Your task to perform on an android device: toggle priority inbox in the gmail app Image 0: 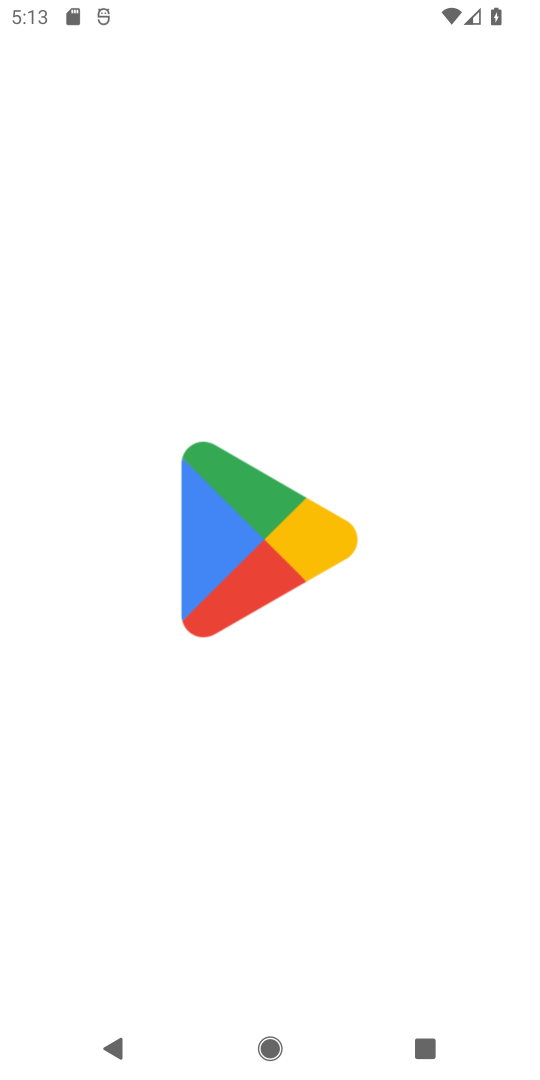
Step 0: press home button
Your task to perform on an android device: toggle priority inbox in the gmail app Image 1: 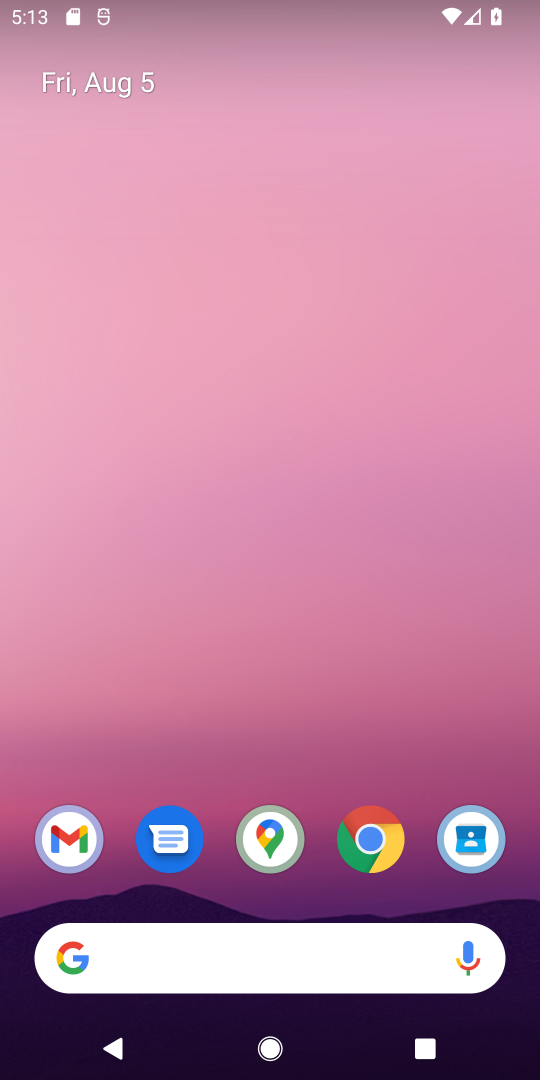
Step 1: drag from (267, 740) to (281, 206)
Your task to perform on an android device: toggle priority inbox in the gmail app Image 2: 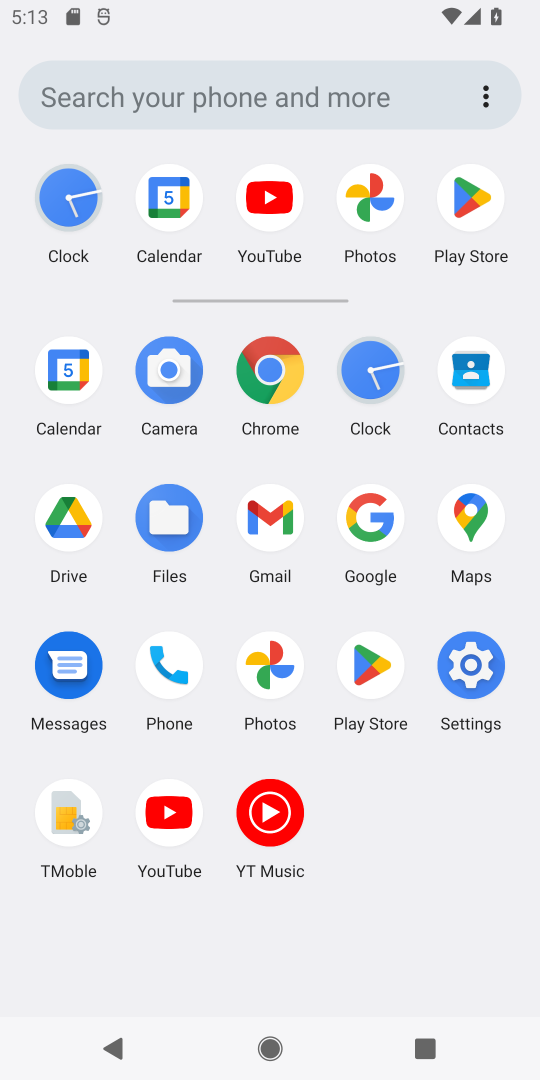
Step 2: click (269, 501)
Your task to perform on an android device: toggle priority inbox in the gmail app Image 3: 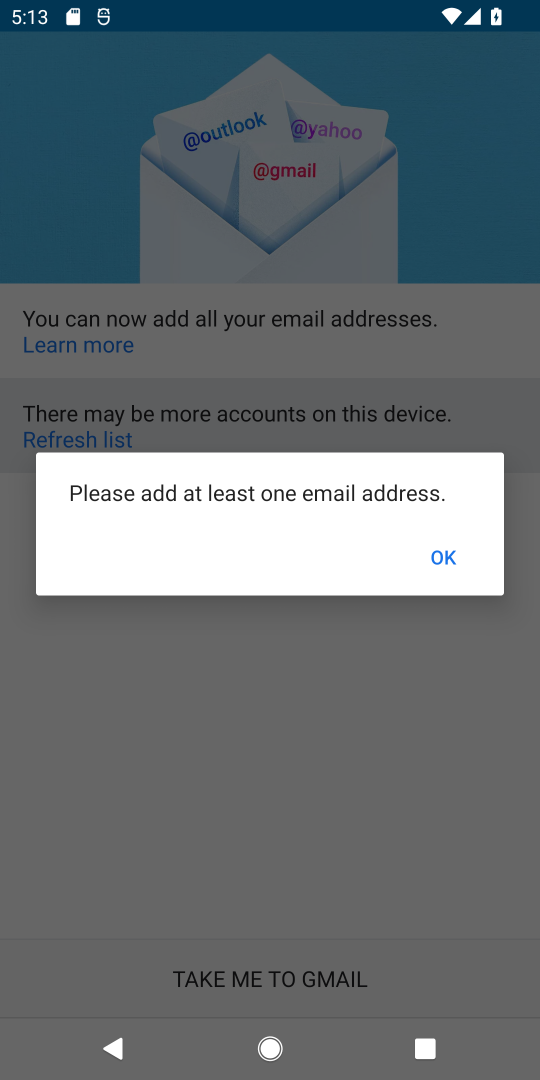
Step 3: click (438, 567)
Your task to perform on an android device: toggle priority inbox in the gmail app Image 4: 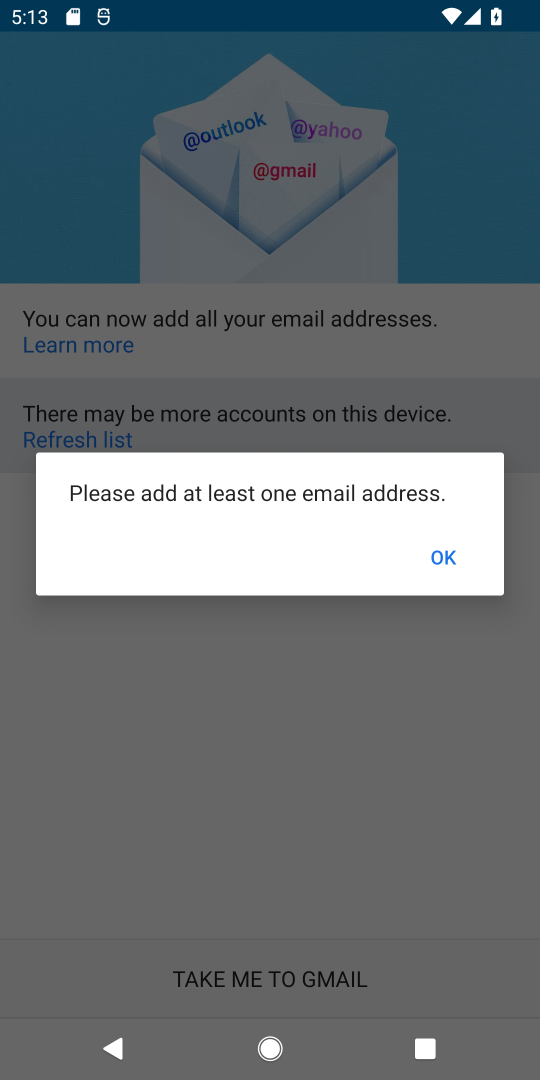
Step 4: click (439, 555)
Your task to perform on an android device: toggle priority inbox in the gmail app Image 5: 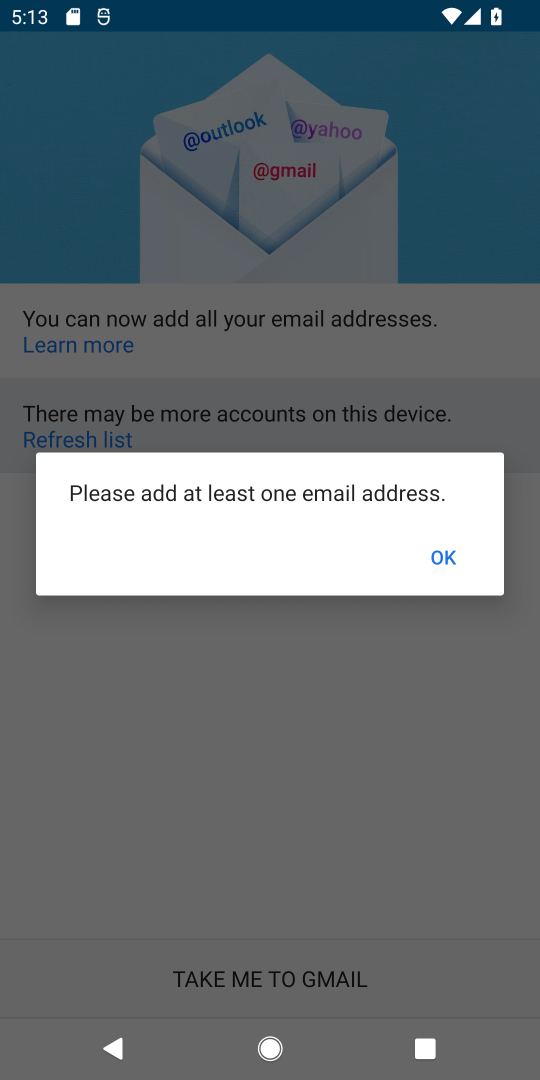
Step 5: click (439, 555)
Your task to perform on an android device: toggle priority inbox in the gmail app Image 6: 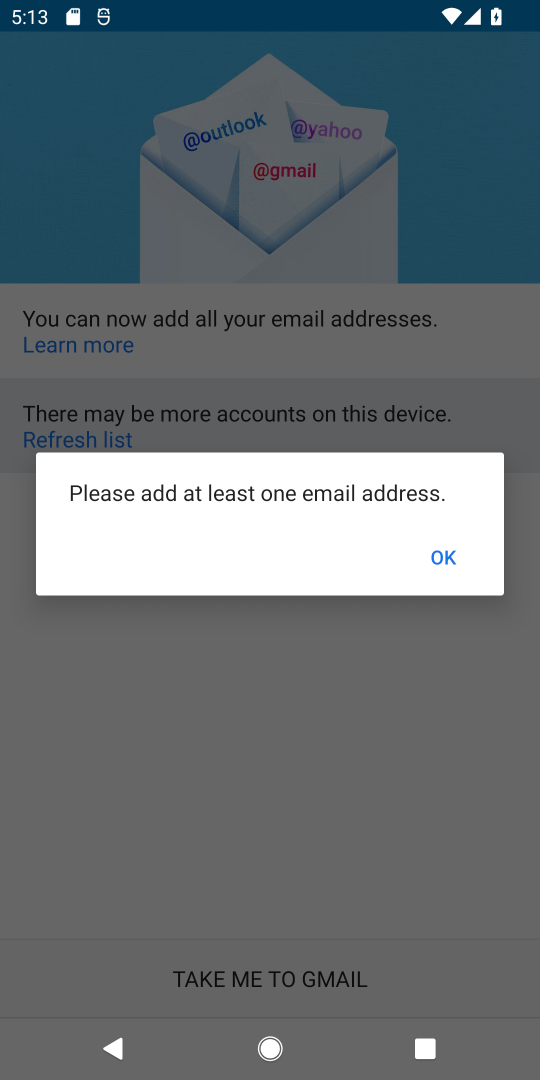
Step 6: click (438, 557)
Your task to perform on an android device: toggle priority inbox in the gmail app Image 7: 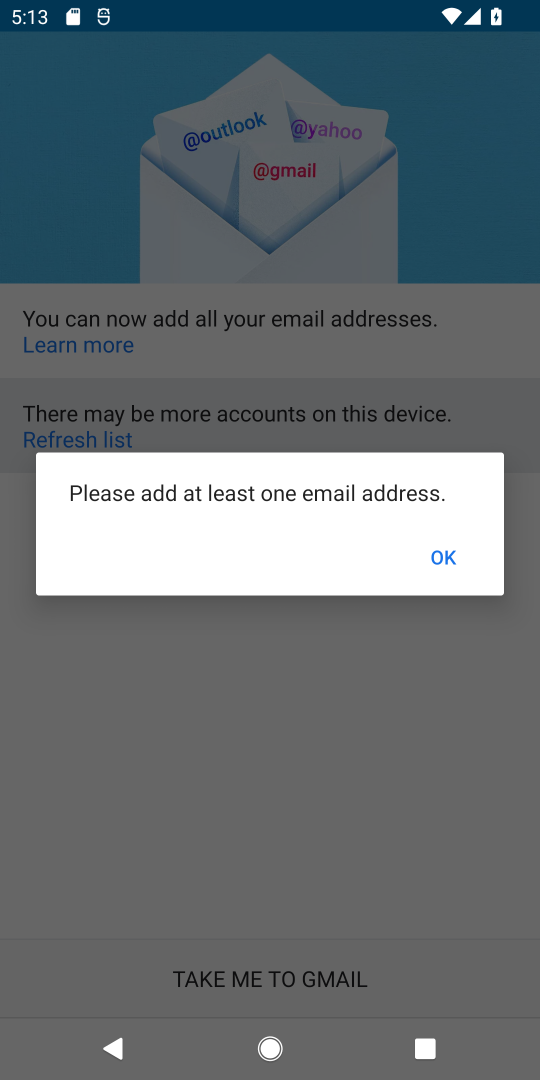
Step 7: task complete